Your task to perform on an android device: show emergency info Image 0: 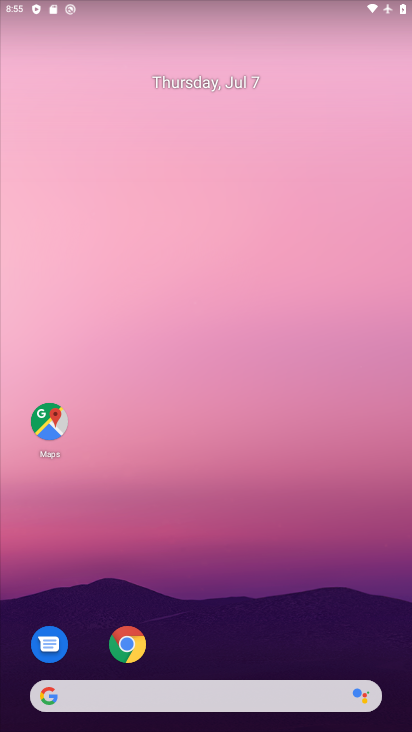
Step 0: click (208, 188)
Your task to perform on an android device: show emergency info Image 1: 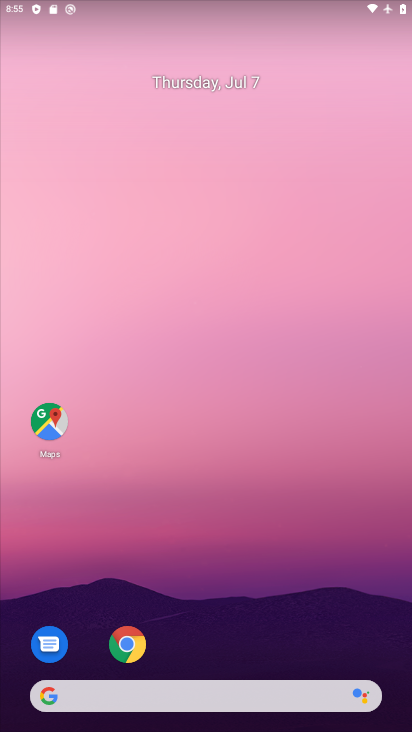
Step 1: drag from (230, 692) to (202, 67)
Your task to perform on an android device: show emergency info Image 2: 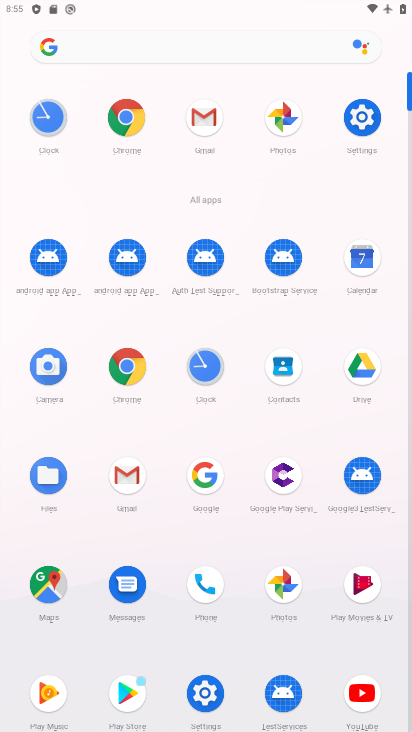
Step 2: click (356, 125)
Your task to perform on an android device: show emergency info Image 3: 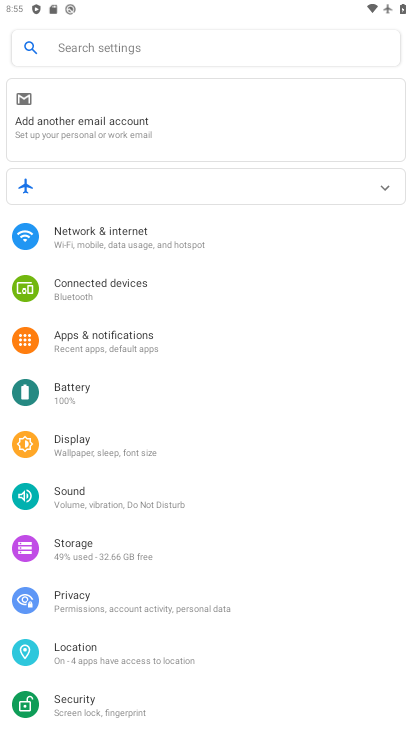
Step 3: drag from (85, 541) to (114, 256)
Your task to perform on an android device: show emergency info Image 4: 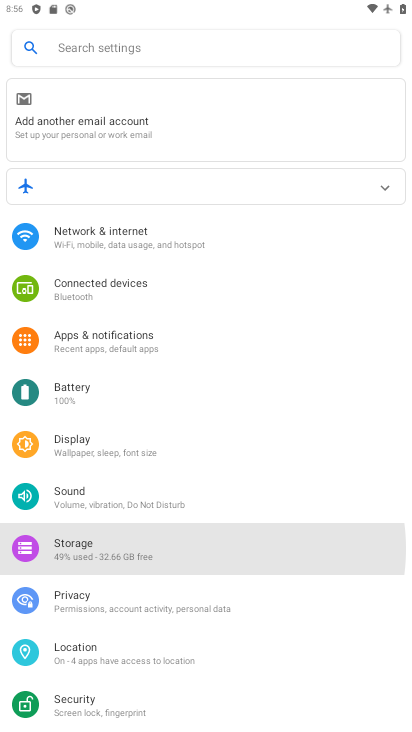
Step 4: drag from (161, 532) to (159, 307)
Your task to perform on an android device: show emergency info Image 5: 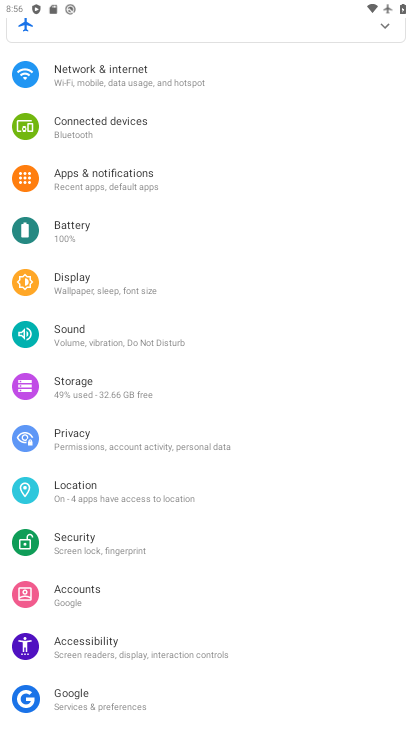
Step 5: drag from (127, 606) to (146, 205)
Your task to perform on an android device: show emergency info Image 6: 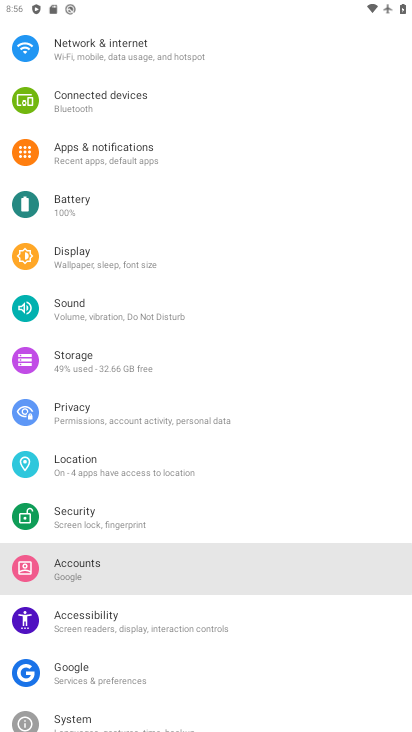
Step 6: drag from (146, 612) to (161, 215)
Your task to perform on an android device: show emergency info Image 7: 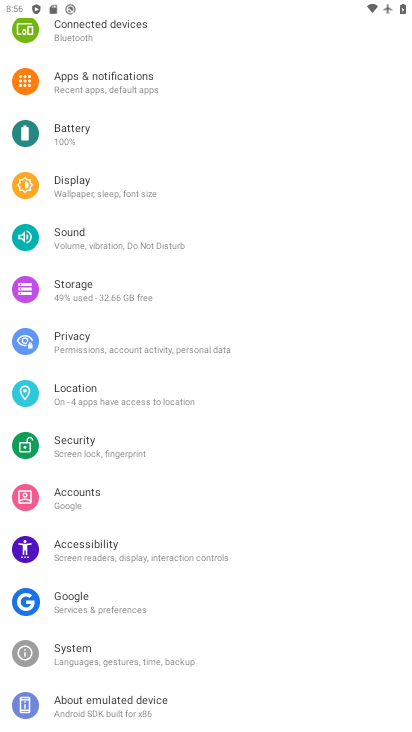
Step 7: drag from (91, 611) to (73, 217)
Your task to perform on an android device: show emergency info Image 8: 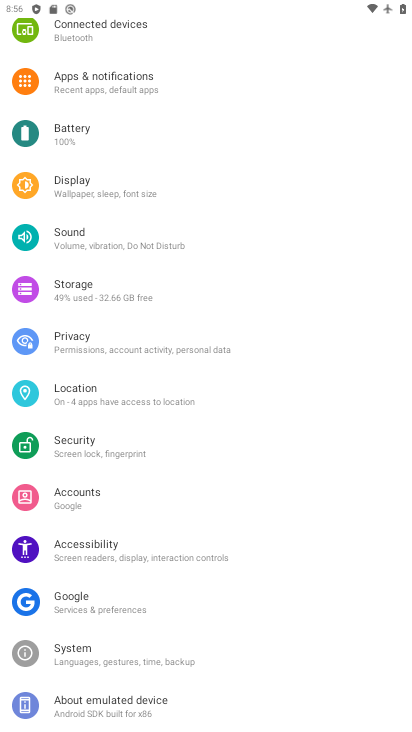
Step 8: click (90, 704)
Your task to perform on an android device: show emergency info Image 9: 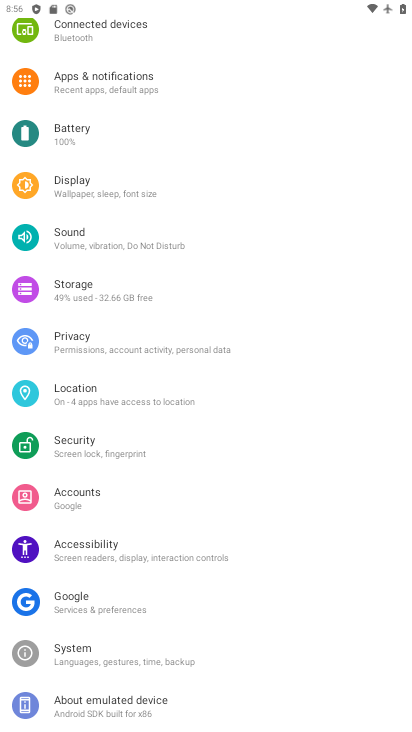
Step 9: click (89, 704)
Your task to perform on an android device: show emergency info Image 10: 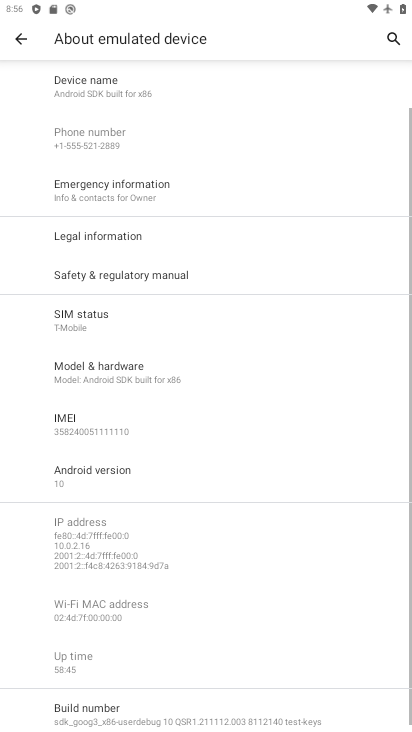
Step 10: click (109, 189)
Your task to perform on an android device: show emergency info Image 11: 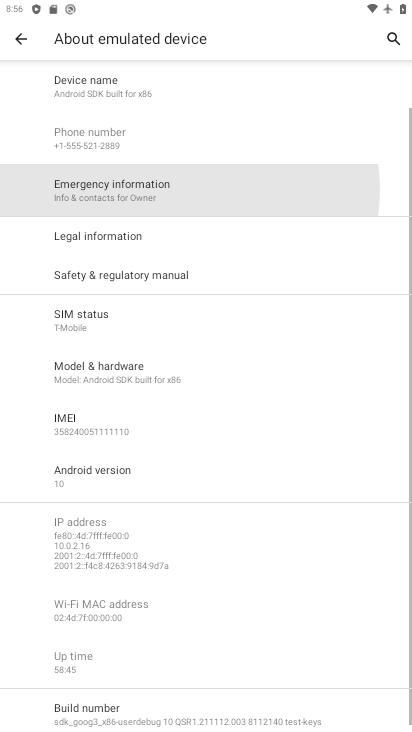
Step 11: click (109, 189)
Your task to perform on an android device: show emergency info Image 12: 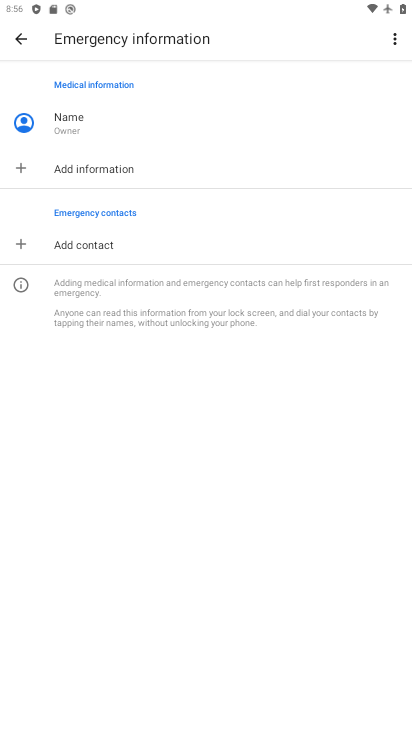
Step 12: task complete